Your task to perform on an android device: Open battery settings Image 0: 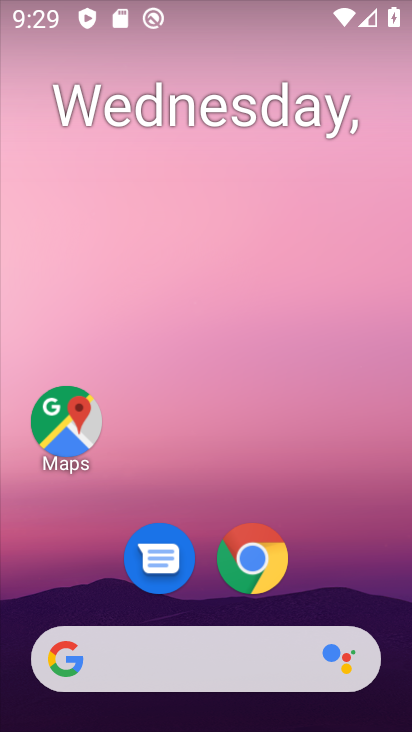
Step 0: drag from (68, 545) to (245, 180)
Your task to perform on an android device: Open battery settings Image 1: 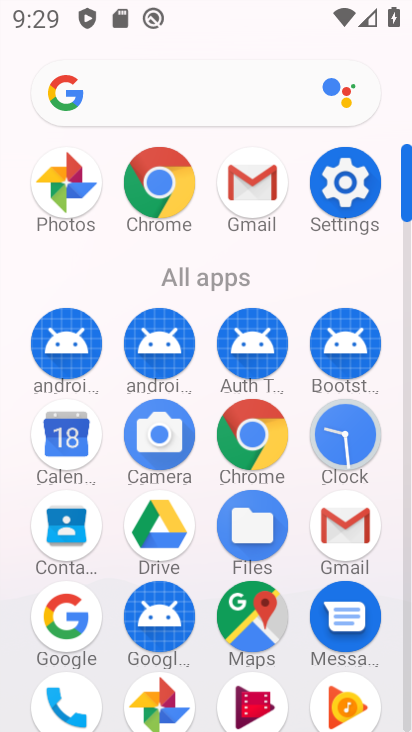
Step 1: click (361, 183)
Your task to perform on an android device: Open battery settings Image 2: 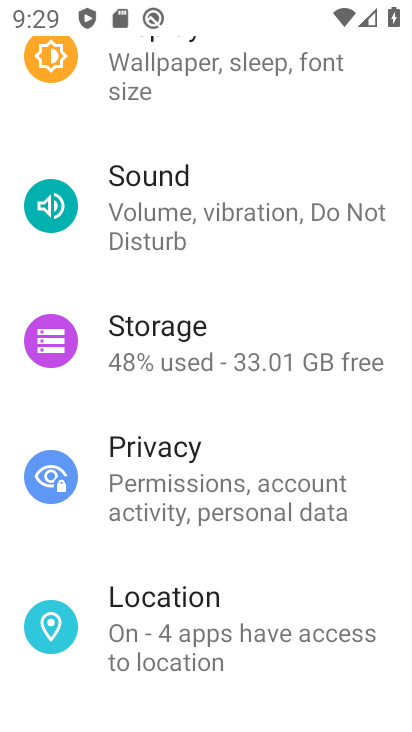
Step 2: drag from (189, 118) to (156, 525)
Your task to perform on an android device: Open battery settings Image 3: 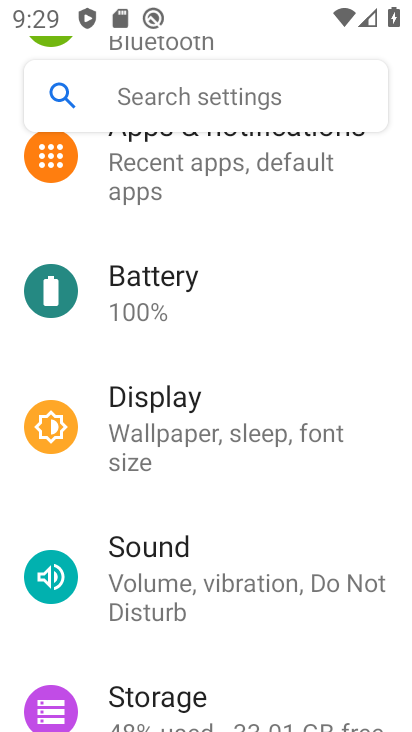
Step 3: click (133, 278)
Your task to perform on an android device: Open battery settings Image 4: 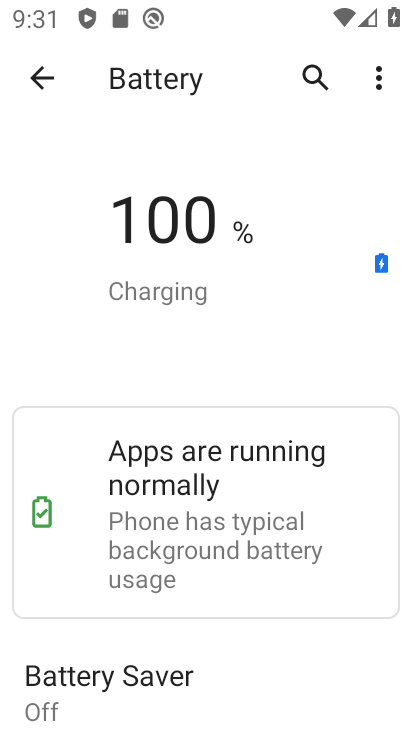
Step 4: task complete